Your task to perform on an android device: Turn off the flashlight Image 0: 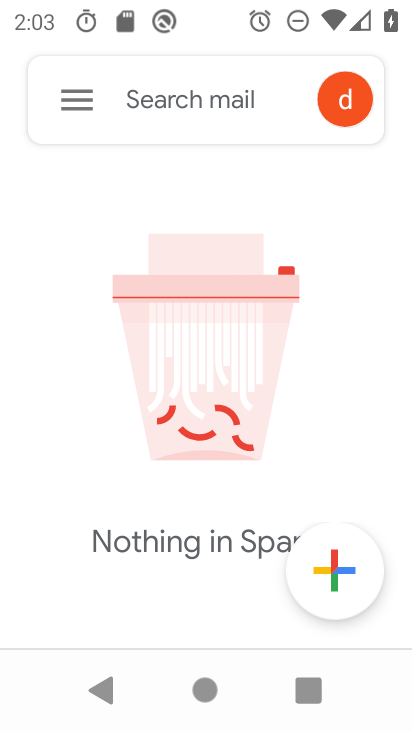
Step 0: drag from (221, 3) to (210, 485)
Your task to perform on an android device: Turn off the flashlight Image 1: 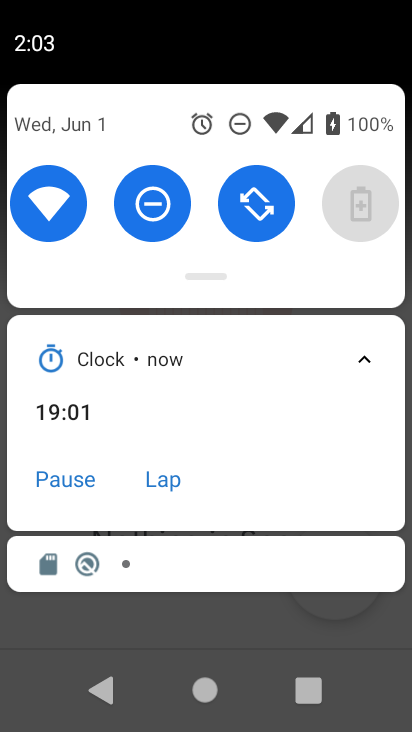
Step 1: task complete